Your task to perform on an android device: Search for macbook pro 13 inch on costco.com, select the first entry, and add it to the cart. Image 0: 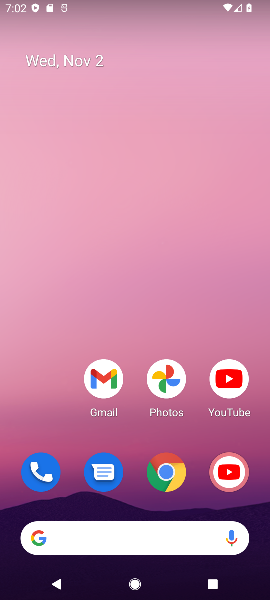
Step 0: click (38, 536)
Your task to perform on an android device: Search for macbook pro 13 inch on costco.com, select the first entry, and add it to the cart. Image 1: 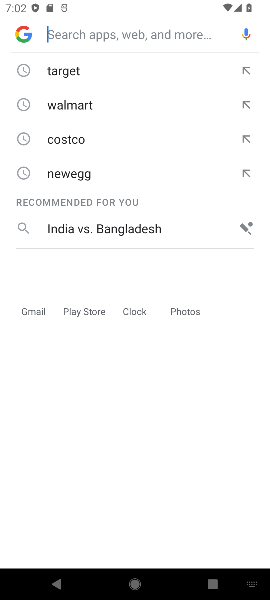
Step 1: type "costco.com"
Your task to perform on an android device: Search for macbook pro 13 inch on costco.com, select the first entry, and add it to the cart. Image 2: 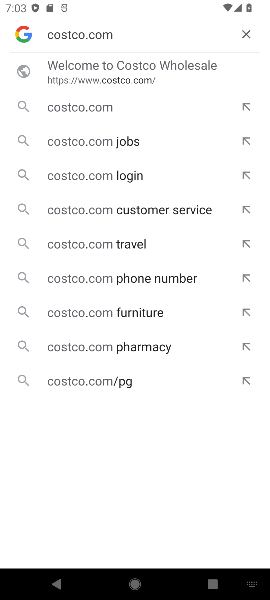
Step 2: click (111, 67)
Your task to perform on an android device: Search for macbook pro 13 inch on costco.com, select the first entry, and add it to the cart. Image 3: 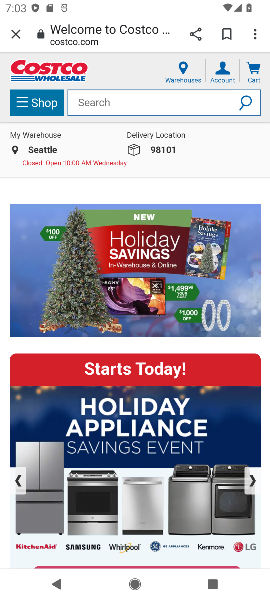
Step 3: click (141, 97)
Your task to perform on an android device: Search for macbook pro 13 inch on costco.com, select the first entry, and add it to the cart. Image 4: 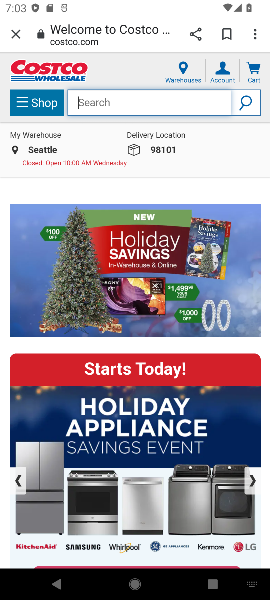
Step 4: type "macbook pro 13 inch"
Your task to perform on an android device: Search for macbook pro 13 inch on costco.com, select the first entry, and add it to the cart. Image 5: 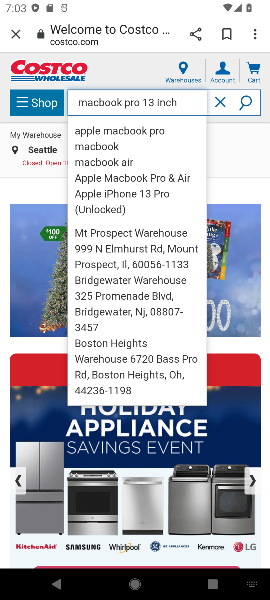
Step 5: click (127, 130)
Your task to perform on an android device: Search for macbook pro 13 inch on costco.com, select the first entry, and add it to the cart. Image 6: 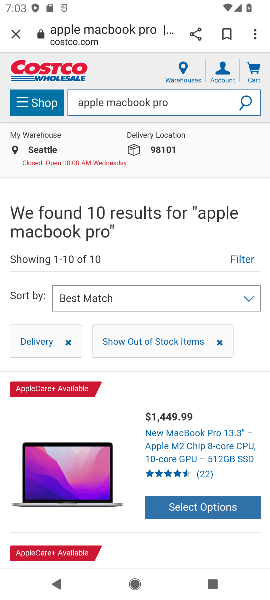
Step 6: drag from (120, 494) to (131, 201)
Your task to perform on an android device: Search for macbook pro 13 inch on costco.com, select the first entry, and add it to the cart. Image 7: 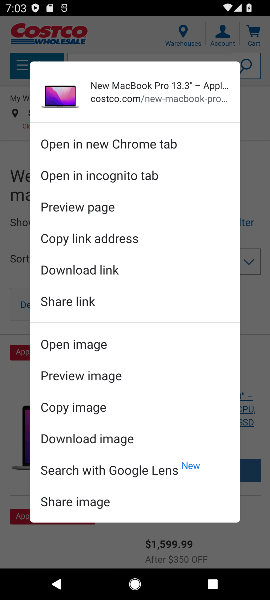
Step 7: click (259, 177)
Your task to perform on an android device: Search for macbook pro 13 inch on costco.com, select the first entry, and add it to the cart. Image 8: 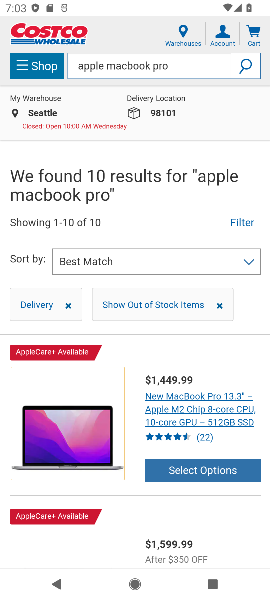
Step 8: drag from (123, 455) to (136, 172)
Your task to perform on an android device: Search for macbook pro 13 inch on costco.com, select the first entry, and add it to the cart. Image 9: 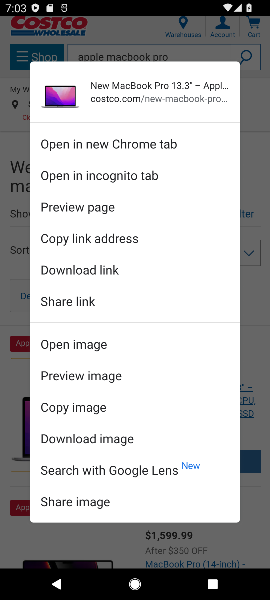
Step 9: click (261, 164)
Your task to perform on an android device: Search for macbook pro 13 inch on costco.com, select the first entry, and add it to the cart. Image 10: 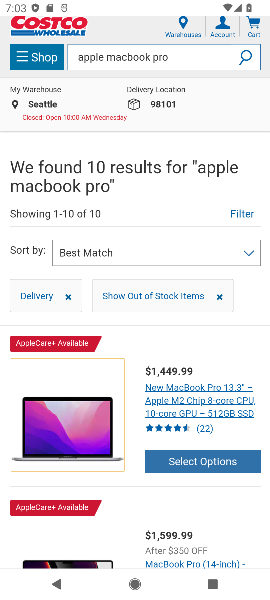
Step 10: drag from (95, 327) to (93, 87)
Your task to perform on an android device: Search for macbook pro 13 inch on costco.com, select the first entry, and add it to the cart. Image 11: 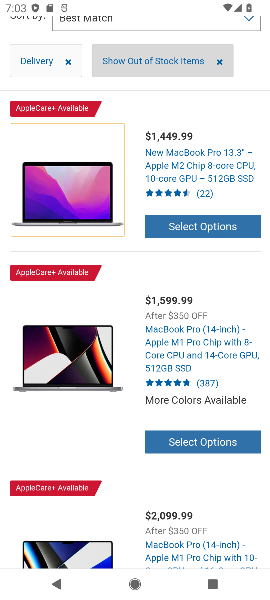
Step 11: click (196, 224)
Your task to perform on an android device: Search for macbook pro 13 inch on costco.com, select the first entry, and add it to the cart. Image 12: 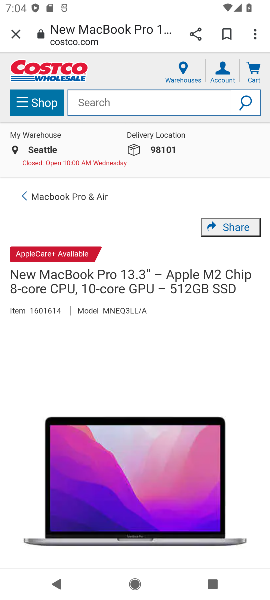
Step 12: drag from (225, 353) to (217, 72)
Your task to perform on an android device: Search for macbook pro 13 inch on costco.com, select the first entry, and add it to the cart. Image 13: 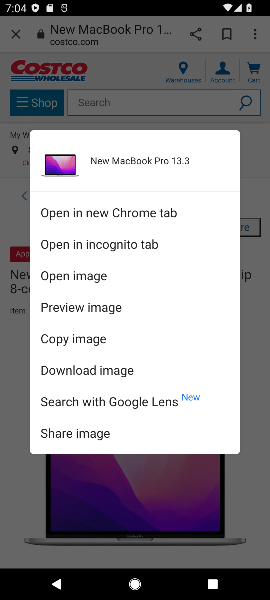
Step 13: click (259, 177)
Your task to perform on an android device: Search for macbook pro 13 inch on costco.com, select the first entry, and add it to the cart. Image 14: 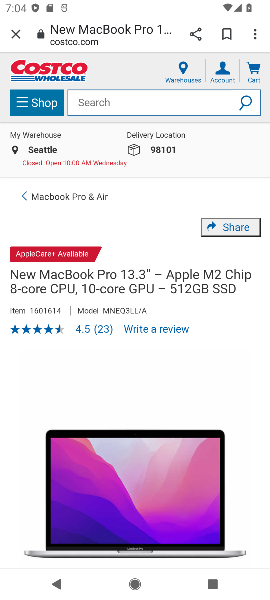
Step 14: task complete